Your task to perform on an android device: Go to Google Image 0: 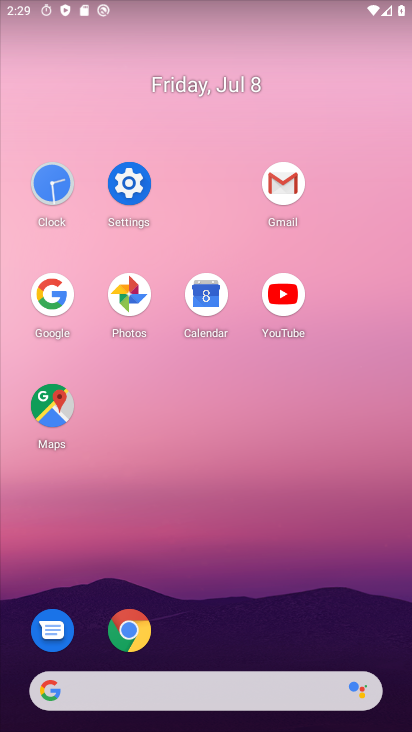
Step 0: click (57, 298)
Your task to perform on an android device: Go to Google Image 1: 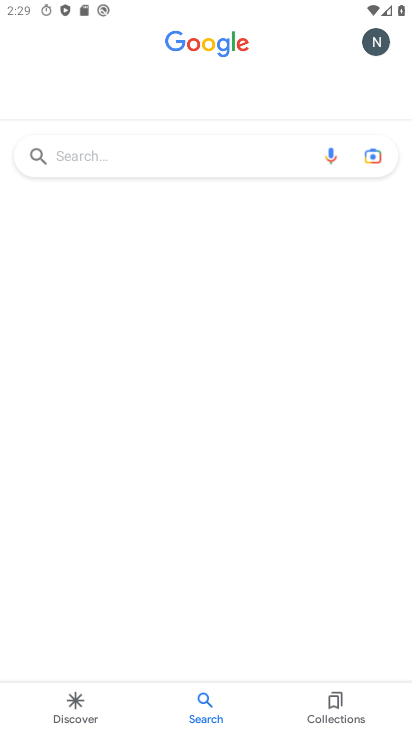
Step 1: task complete